Your task to perform on an android device: Open Youtube and go to the subscriptions tab Image 0: 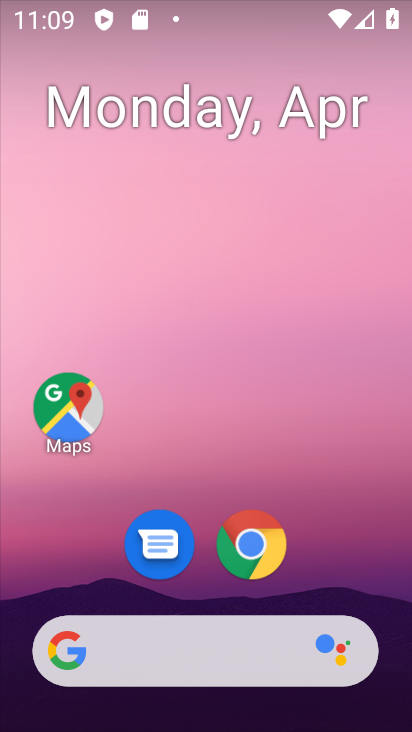
Step 0: drag from (356, 360) to (360, 51)
Your task to perform on an android device: Open Youtube and go to the subscriptions tab Image 1: 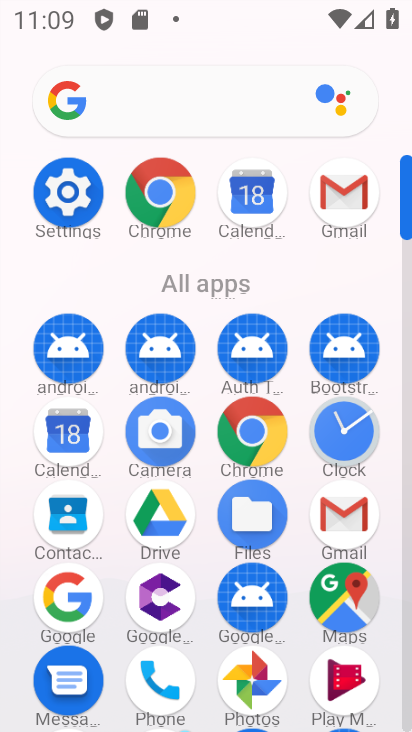
Step 1: drag from (408, 611) to (404, 558)
Your task to perform on an android device: Open Youtube and go to the subscriptions tab Image 2: 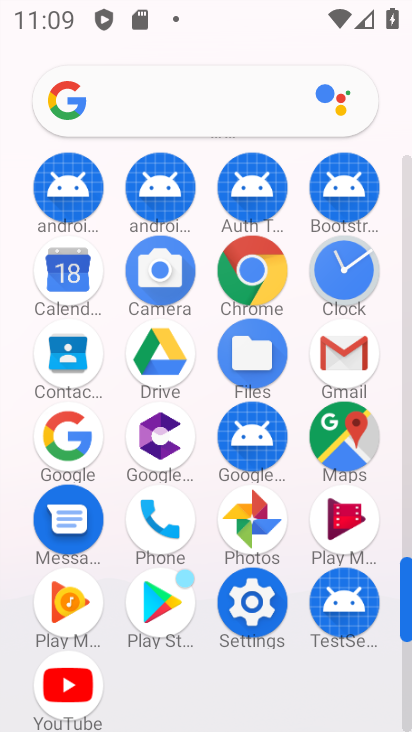
Step 2: click (80, 694)
Your task to perform on an android device: Open Youtube and go to the subscriptions tab Image 3: 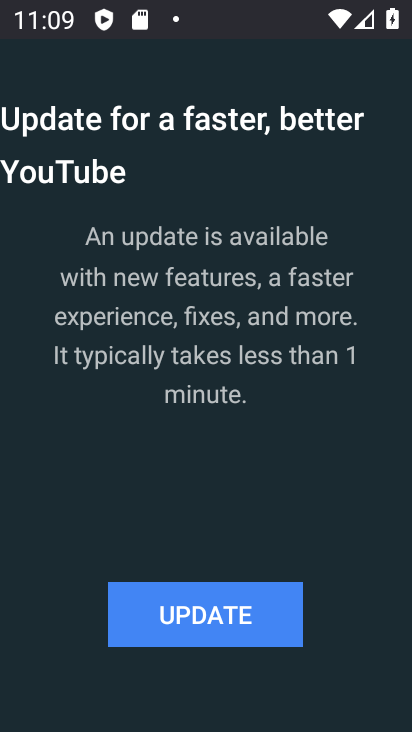
Step 3: click (219, 631)
Your task to perform on an android device: Open Youtube and go to the subscriptions tab Image 4: 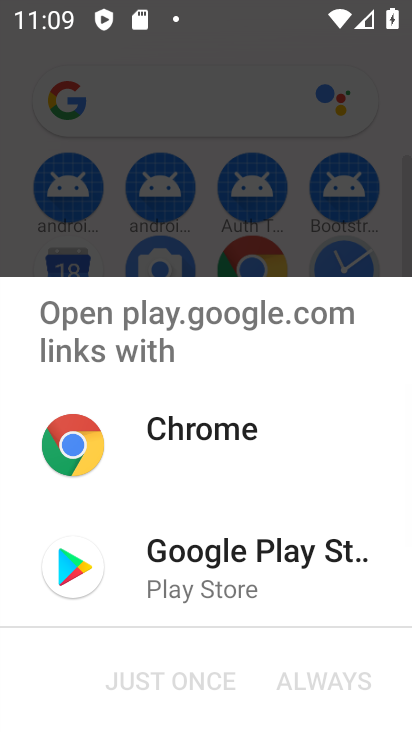
Step 4: click (240, 588)
Your task to perform on an android device: Open Youtube and go to the subscriptions tab Image 5: 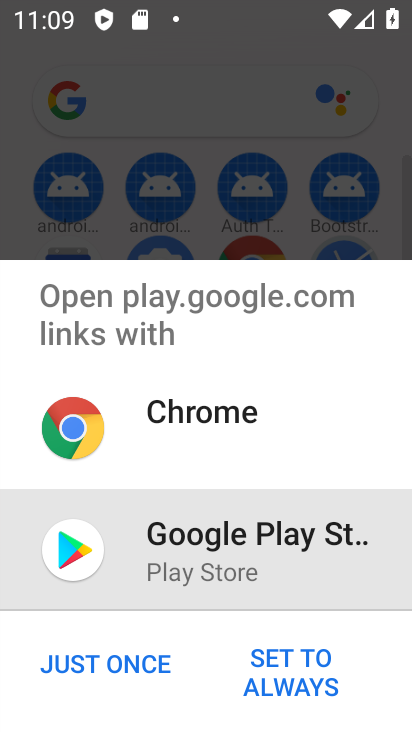
Step 5: click (116, 666)
Your task to perform on an android device: Open Youtube and go to the subscriptions tab Image 6: 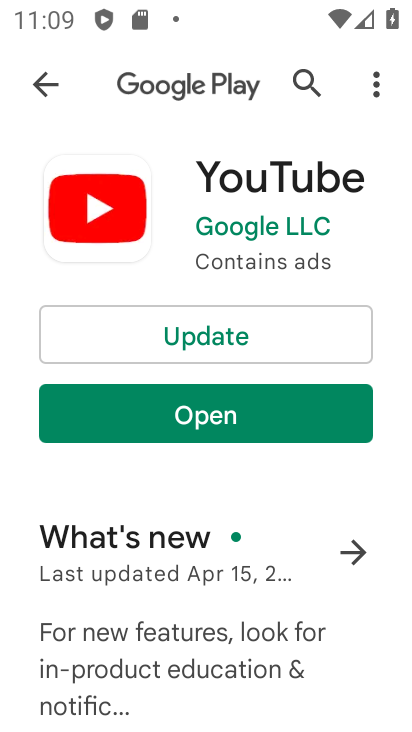
Step 6: click (206, 346)
Your task to perform on an android device: Open Youtube and go to the subscriptions tab Image 7: 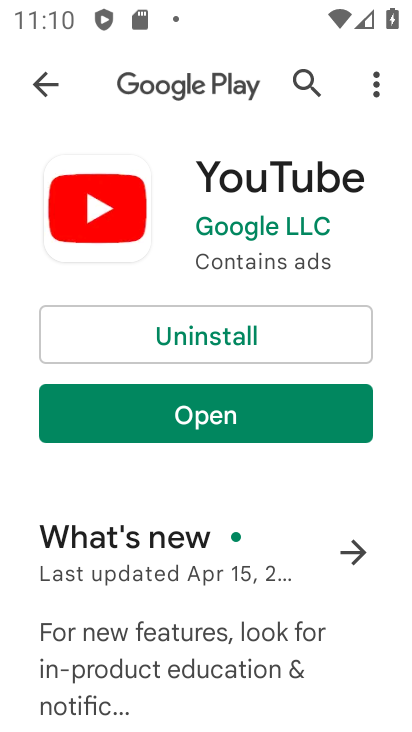
Step 7: click (225, 425)
Your task to perform on an android device: Open Youtube and go to the subscriptions tab Image 8: 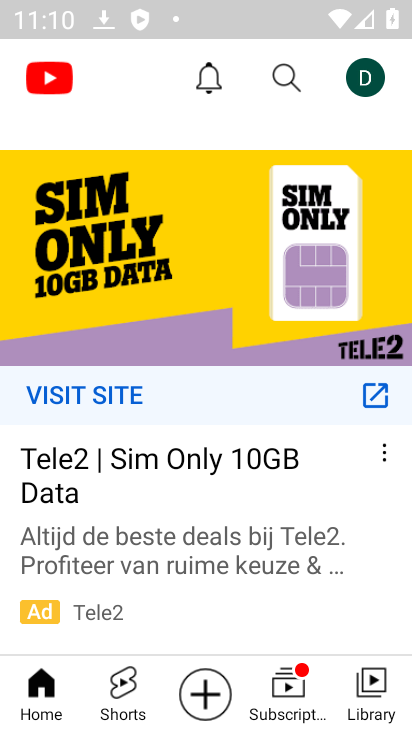
Step 8: click (296, 697)
Your task to perform on an android device: Open Youtube and go to the subscriptions tab Image 9: 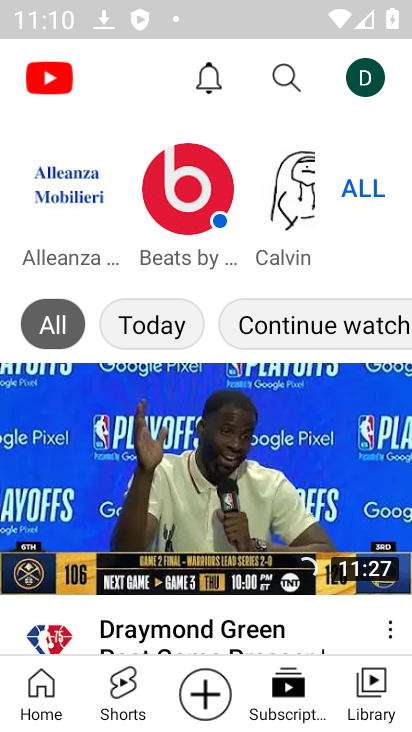
Step 9: task complete